Your task to perform on an android device: What's the weather going to be tomorrow? Image 0: 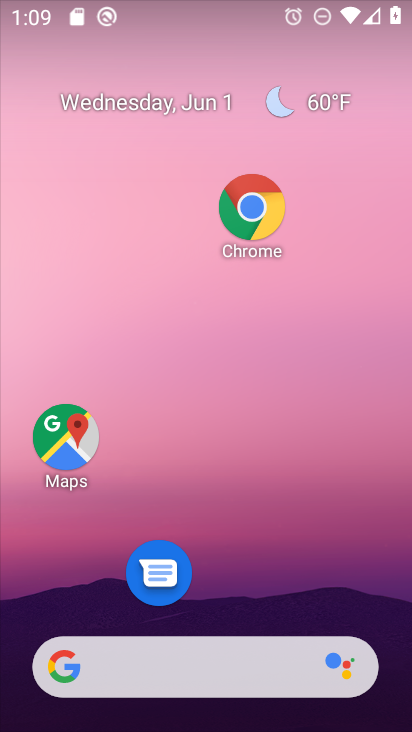
Step 0: drag from (236, 590) to (180, 166)
Your task to perform on an android device: What's the weather going to be tomorrow? Image 1: 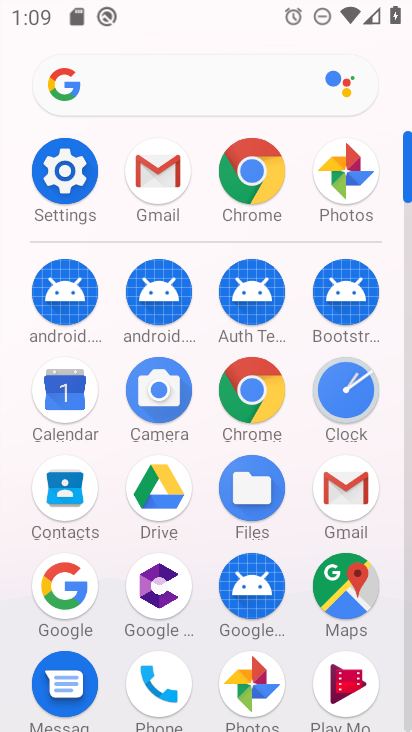
Step 1: click (74, 589)
Your task to perform on an android device: What's the weather going to be tomorrow? Image 2: 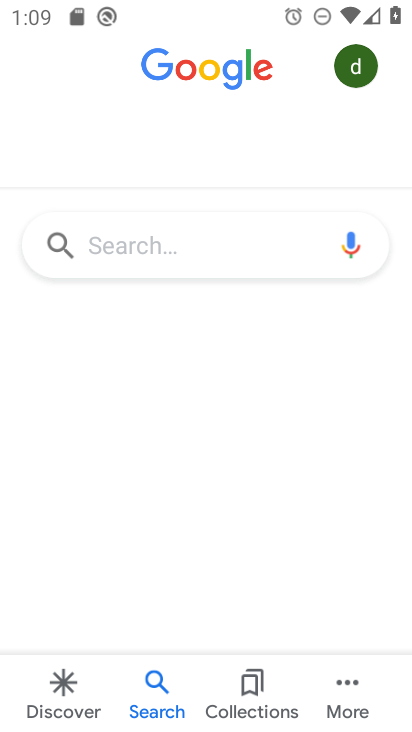
Step 2: click (185, 242)
Your task to perform on an android device: What's the weather going to be tomorrow? Image 3: 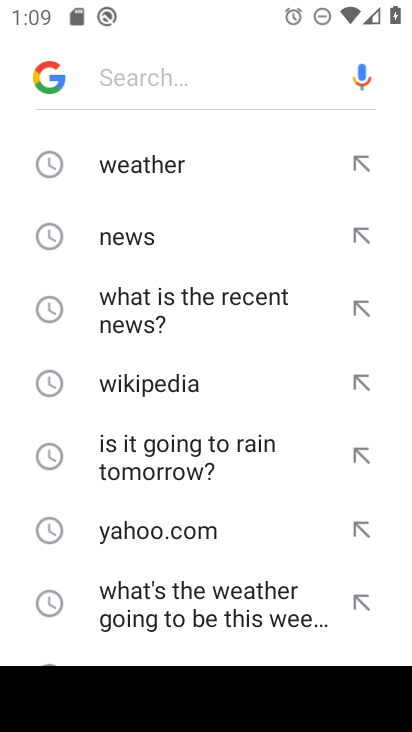
Step 3: click (173, 170)
Your task to perform on an android device: What's the weather going to be tomorrow? Image 4: 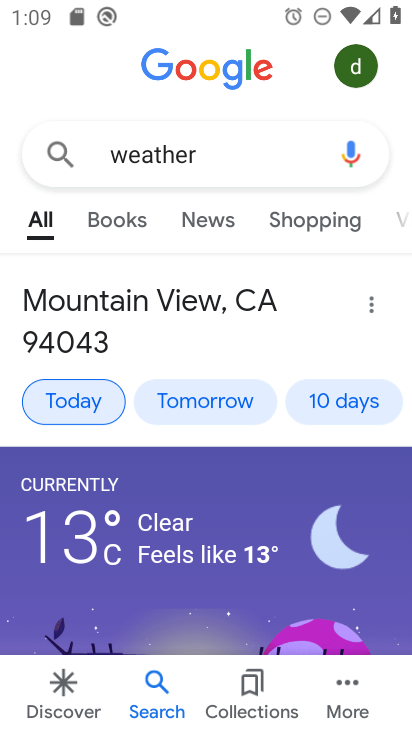
Step 4: click (183, 396)
Your task to perform on an android device: What's the weather going to be tomorrow? Image 5: 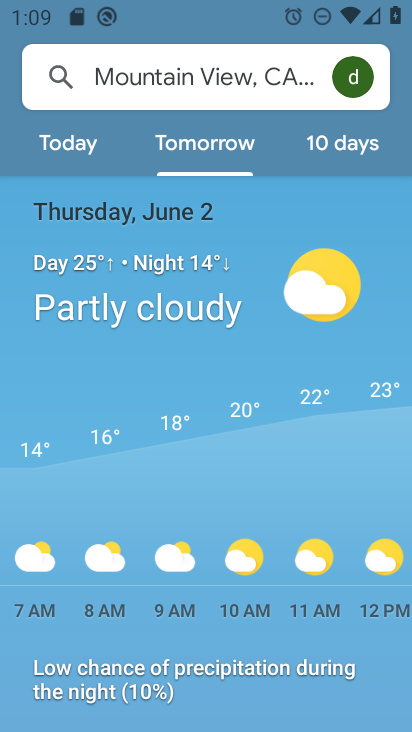
Step 5: task complete